Your task to perform on an android device: open sync settings in chrome Image 0: 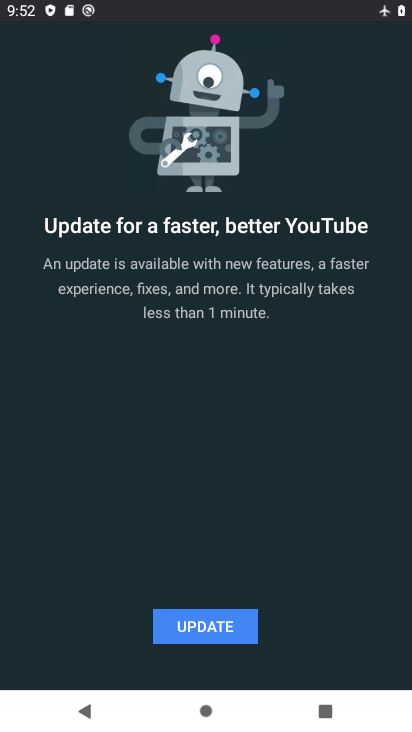
Step 0: press home button
Your task to perform on an android device: open sync settings in chrome Image 1: 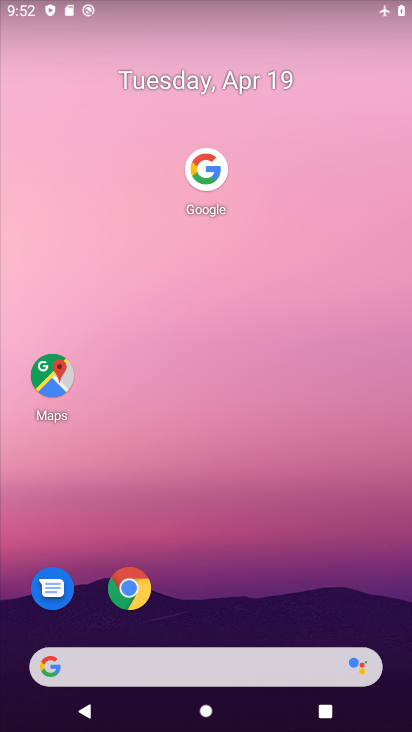
Step 1: drag from (228, 613) to (267, 0)
Your task to perform on an android device: open sync settings in chrome Image 2: 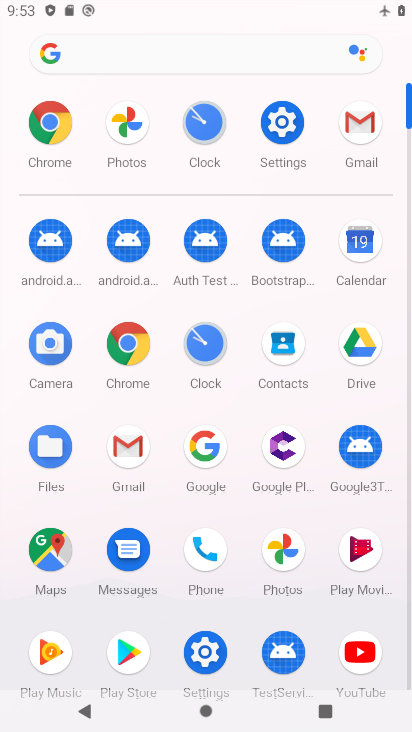
Step 2: click (51, 130)
Your task to perform on an android device: open sync settings in chrome Image 3: 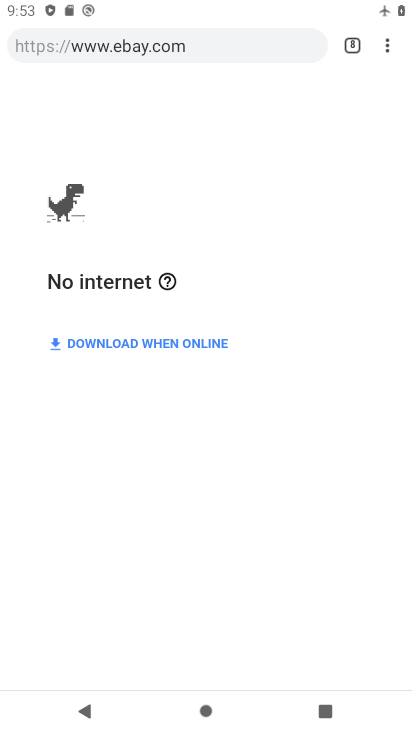
Step 3: click (383, 45)
Your task to perform on an android device: open sync settings in chrome Image 4: 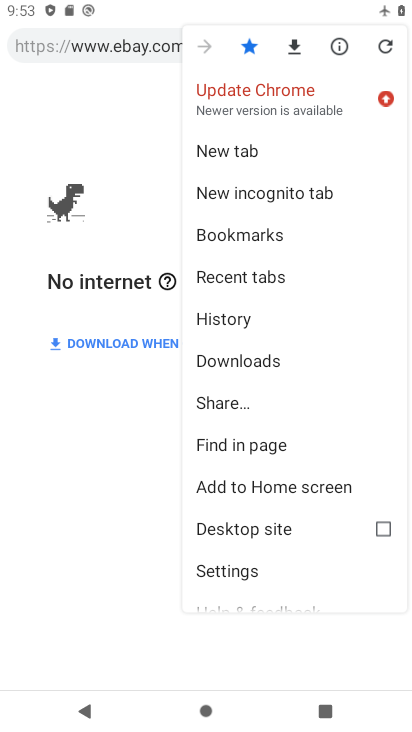
Step 4: click (242, 568)
Your task to perform on an android device: open sync settings in chrome Image 5: 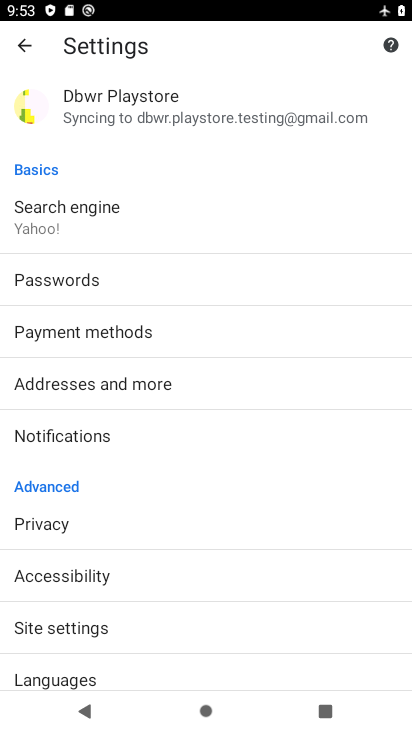
Step 5: click (101, 112)
Your task to perform on an android device: open sync settings in chrome Image 6: 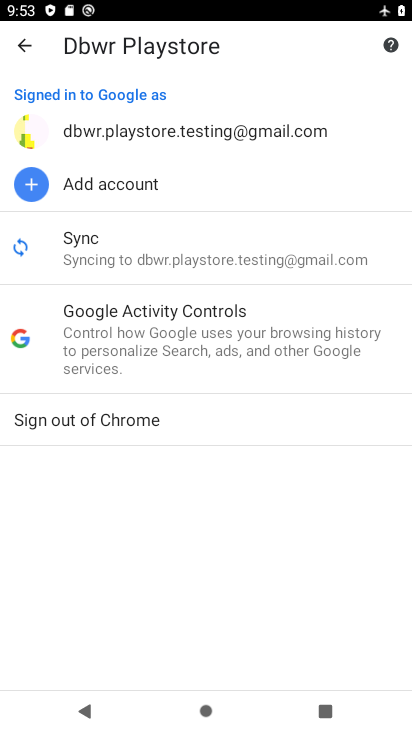
Step 6: click (136, 239)
Your task to perform on an android device: open sync settings in chrome Image 7: 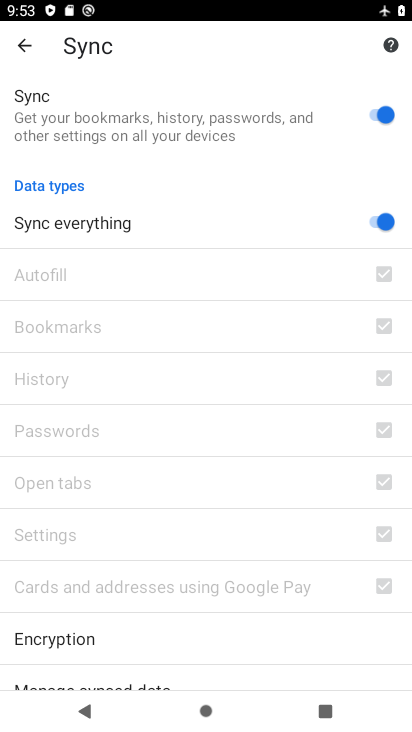
Step 7: task complete